Your task to perform on an android device: find photos in the google photos app Image 0: 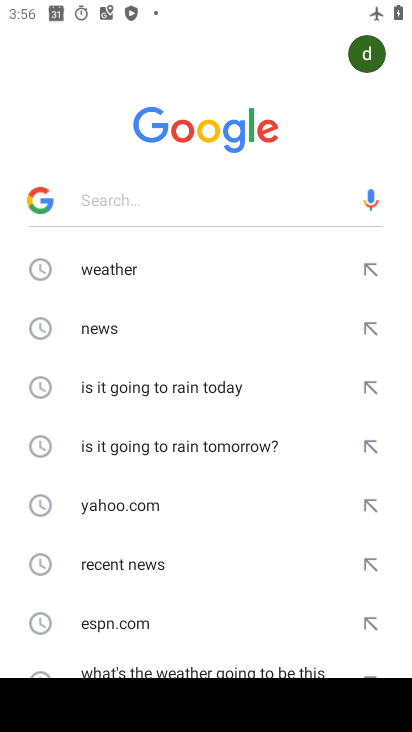
Step 0: press home button
Your task to perform on an android device: find photos in the google photos app Image 1: 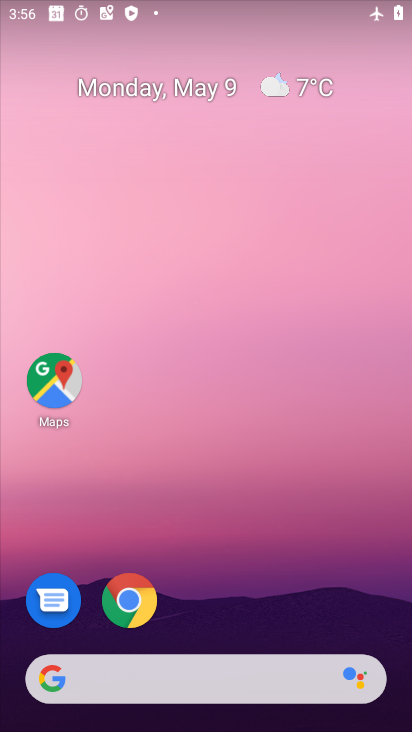
Step 1: drag from (280, 580) to (202, 120)
Your task to perform on an android device: find photos in the google photos app Image 2: 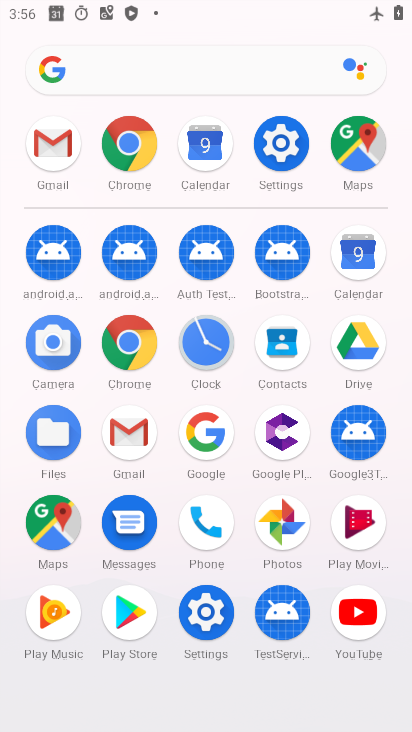
Step 2: click (288, 510)
Your task to perform on an android device: find photos in the google photos app Image 3: 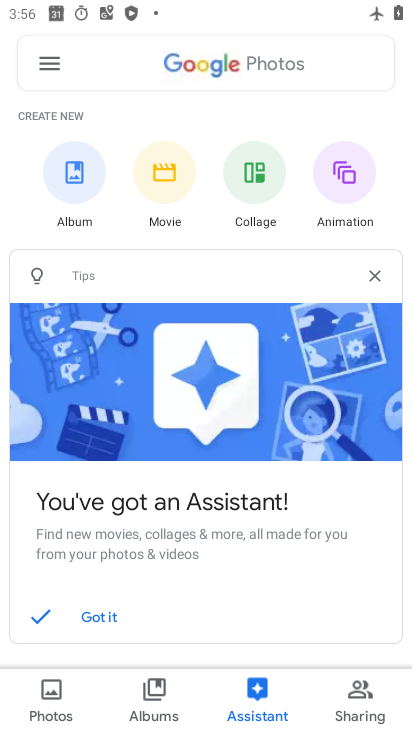
Step 3: click (38, 699)
Your task to perform on an android device: find photos in the google photos app Image 4: 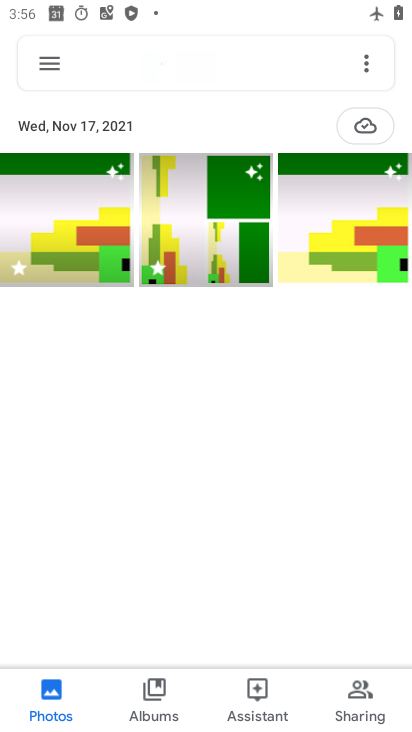
Step 4: click (76, 226)
Your task to perform on an android device: find photos in the google photos app Image 5: 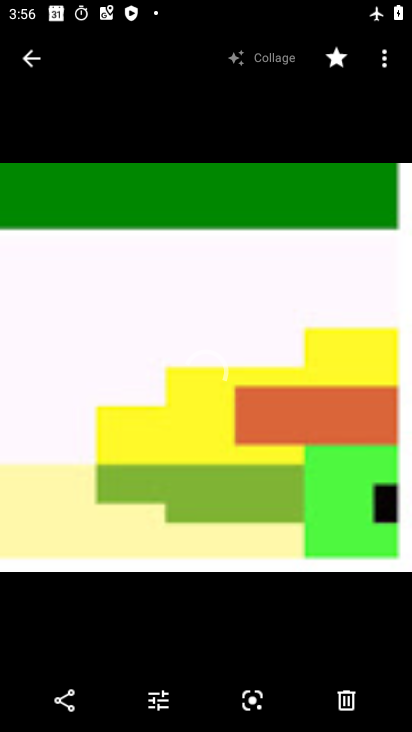
Step 5: task complete